Your task to perform on an android device: manage bookmarks in the chrome app Image 0: 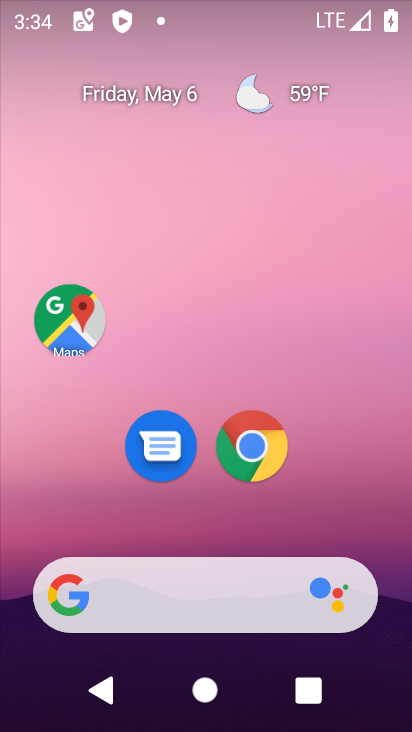
Step 0: click (262, 453)
Your task to perform on an android device: manage bookmarks in the chrome app Image 1: 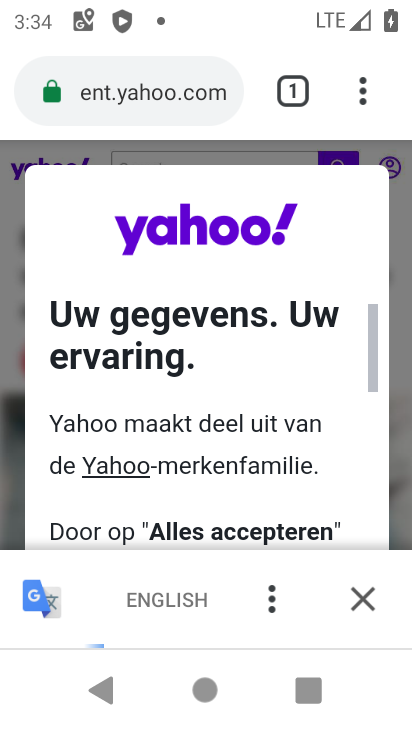
Step 1: task complete